Your task to perform on an android device: Open Google Maps and go to "Timeline" Image 0: 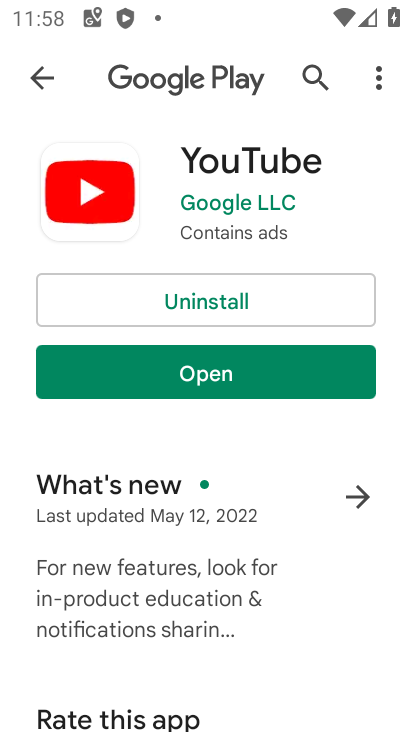
Step 0: press home button
Your task to perform on an android device: Open Google Maps and go to "Timeline" Image 1: 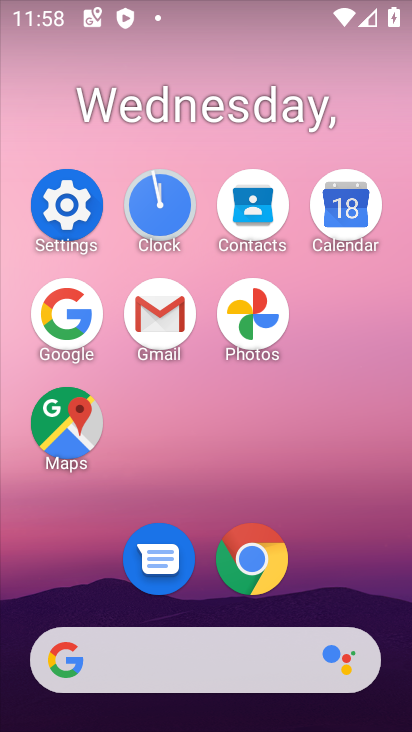
Step 1: click (60, 424)
Your task to perform on an android device: Open Google Maps and go to "Timeline" Image 2: 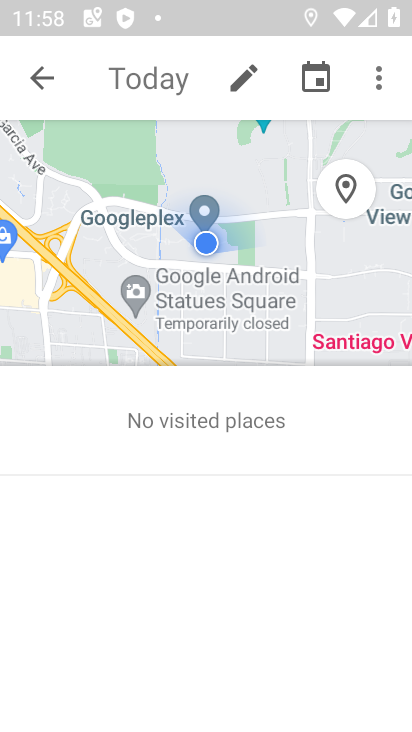
Step 2: click (41, 60)
Your task to perform on an android device: Open Google Maps and go to "Timeline" Image 3: 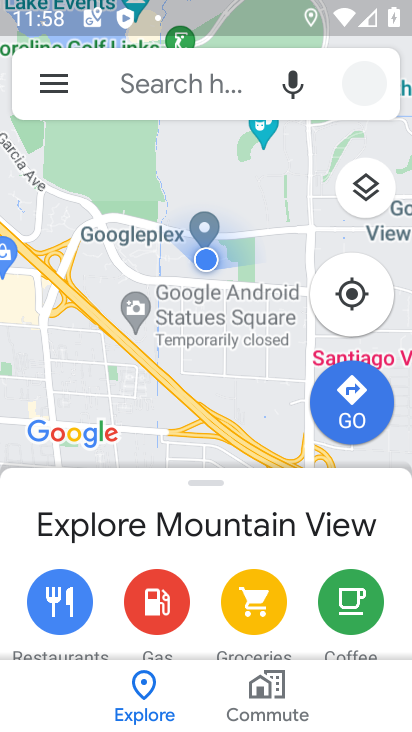
Step 3: click (52, 84)
Your task to perform on an android device: Open Google Maps and go to "Timeline" Image 4: 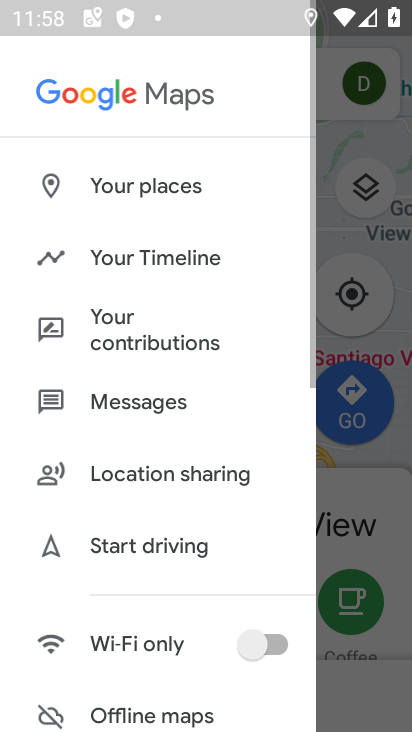
Step 4: click (149, 270)
Your task to perform on an android device: Open Google Maps and go to "Timeline" Image 5: 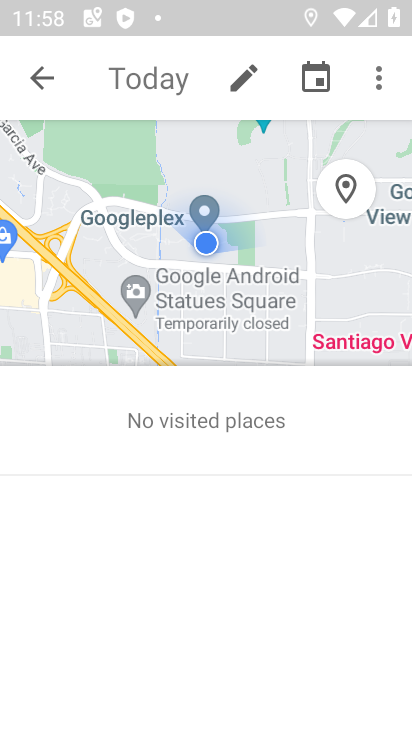
Step 5: task complete